Your task to perform on an android device: toggle location history Image 0: 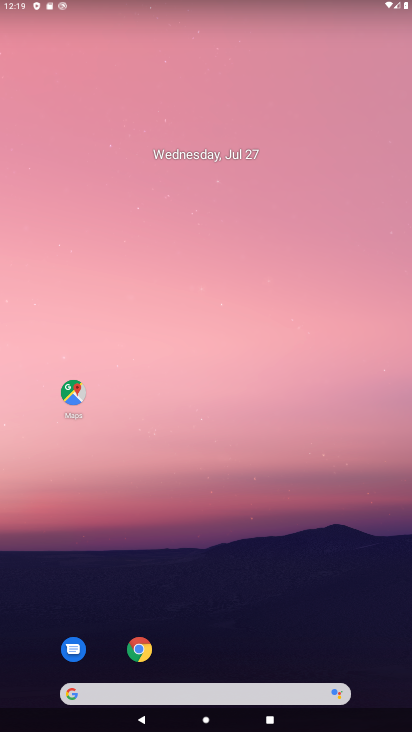
Step 0: click (73, 389)
Your task to perform on an android device: toggle location history Image 1: 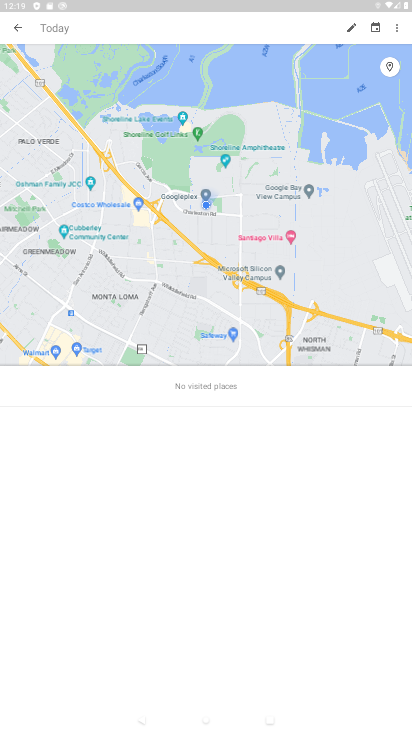
Step 1: click (398, 31)
Your task to perform on an android device: toggle location history Image 2: 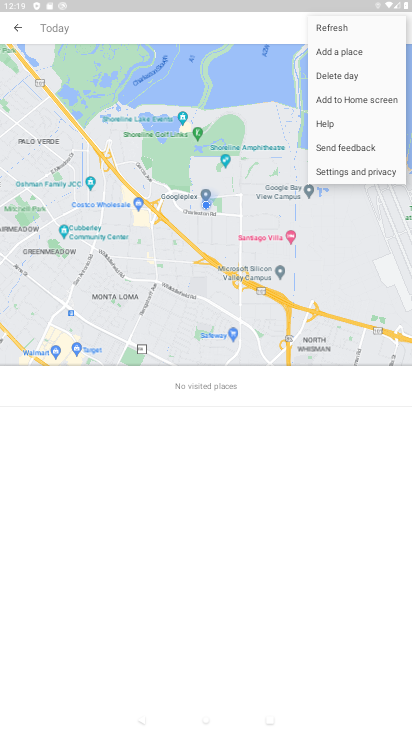
Step 2: click (367, 171)
Your task to perform on an android device: toggle location history Image 3: 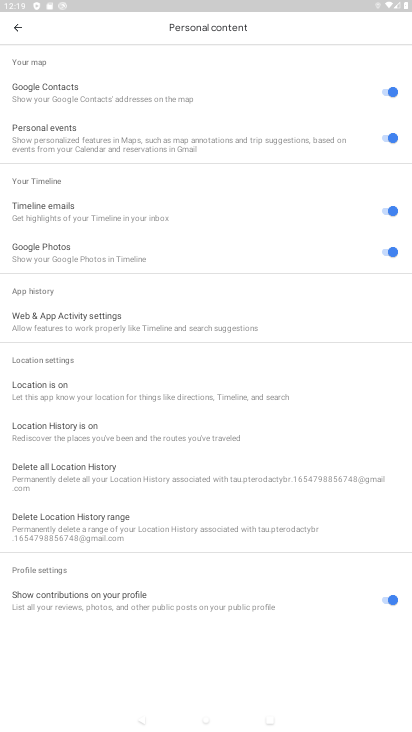
Step 3: click (119, 436)
Your task to perform on an android device: toggle location history Image 4: 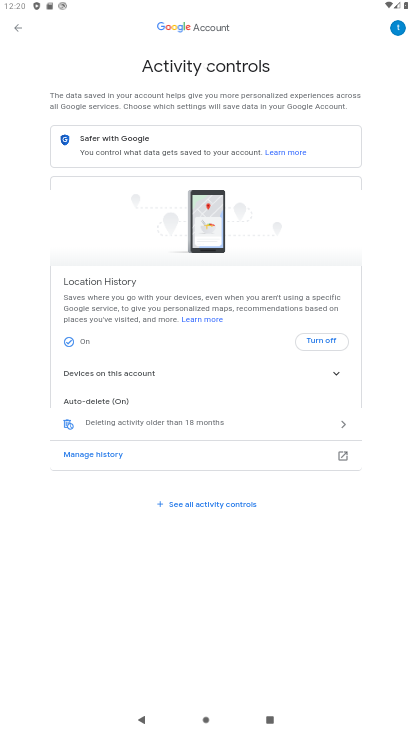
Step 4: click (336, 340)
Your task to perform on an android device: toggle location history Image 5: 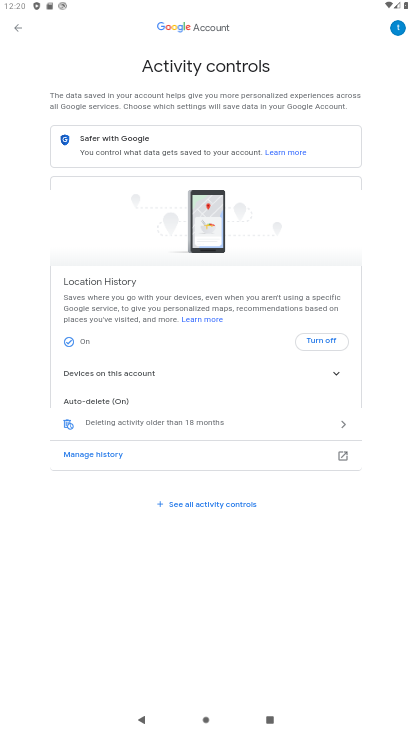
Step 5: click (337, 341)
Your task to perform on an android device: toggle location history Image 6: 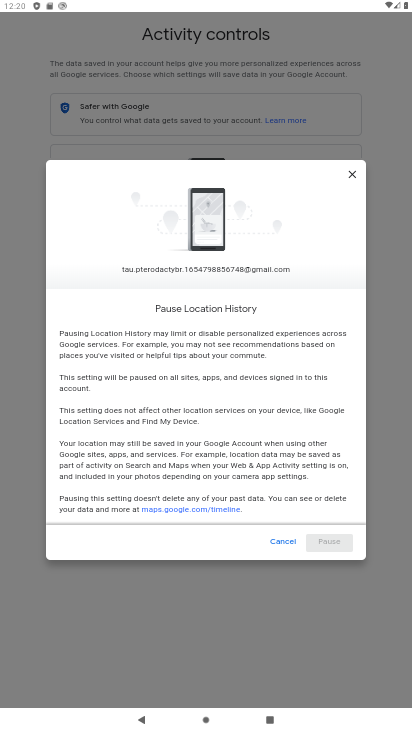
Step 6: drag from (323, 486) to (253, 167)
Your task to perform on an android device: toggle location history Image 7: 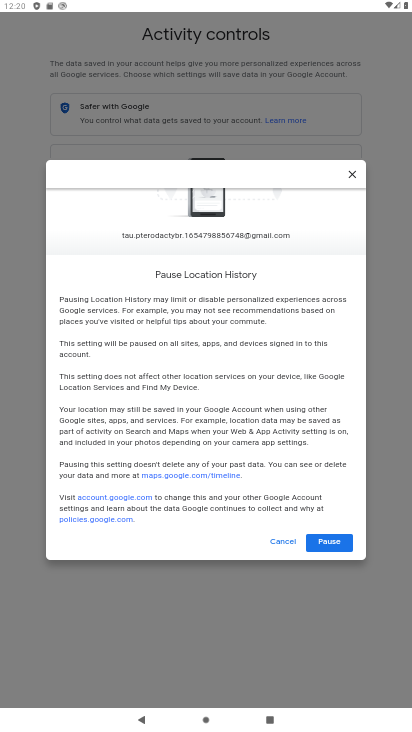
Step 7: click (339, 558)
Your task to perform on an android device: toggle location history Image 8: 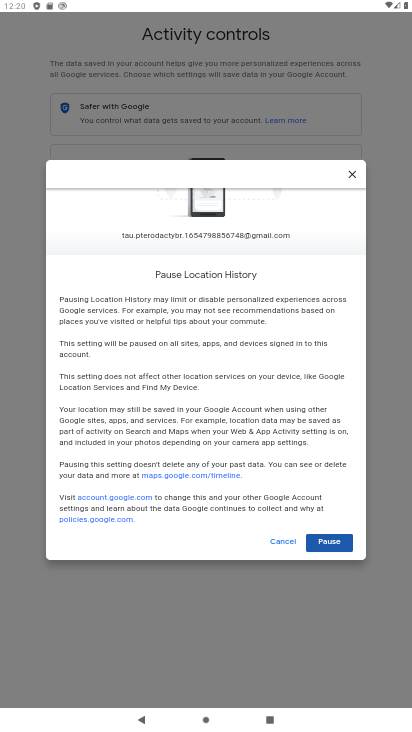
Step 8: click (339, 549)
Your task to perform on an android device: toggle location history Image 9: 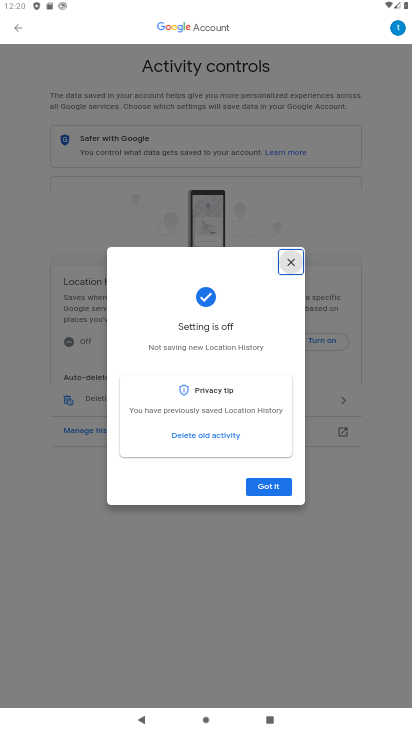
Step 9: click (277, 488)
Your task to perform on an android device: toggle location history Image 10: 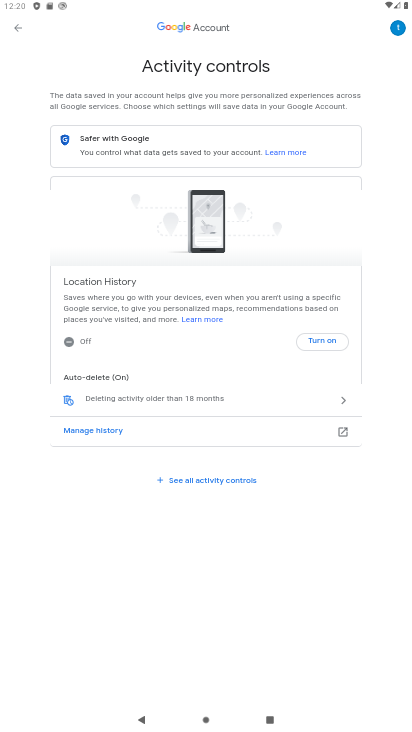
Step 10: task complete